Your task to perform on an android device: Open Reddit.com Image 0: 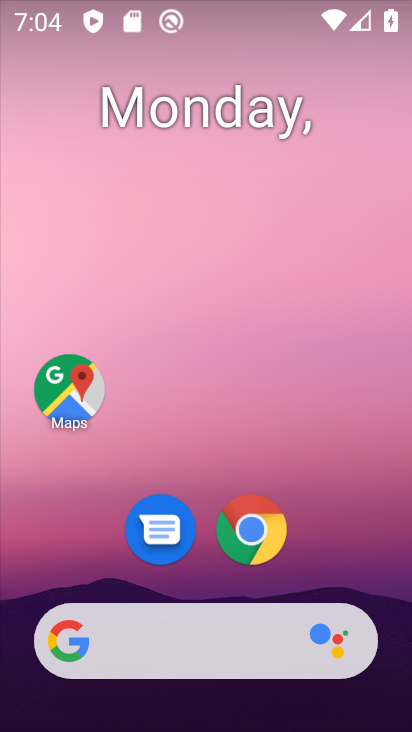
Step 0: click (246, 535)
Your task to perform on an android device: Open Reddit.com Image 1: 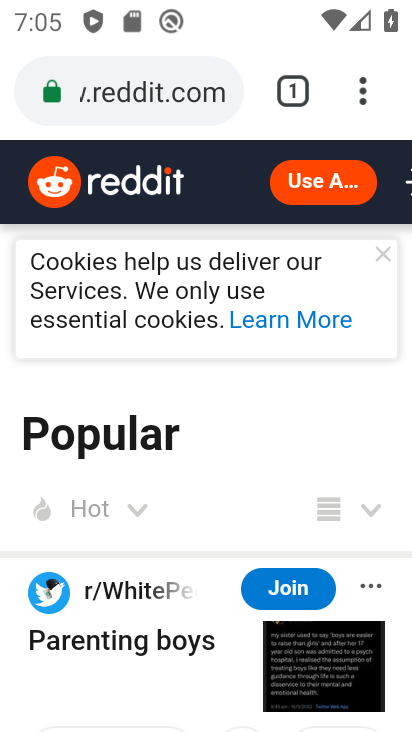
Step 1: task complete